Your task to perform on an android device: Open battery settings Image 0: 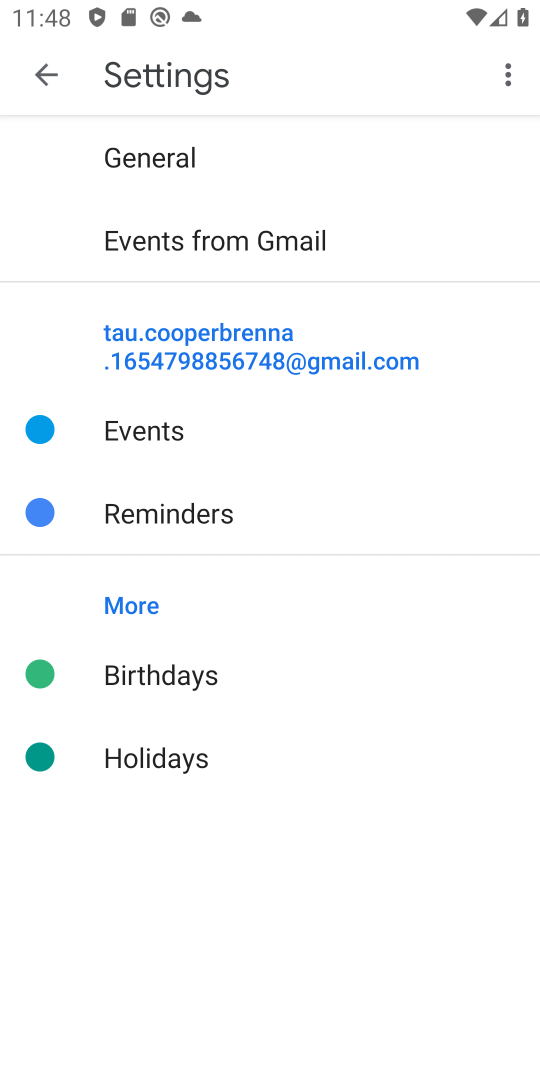
Step 0: press home button
Your task to perform on an android device: Open battery settings Image 1: 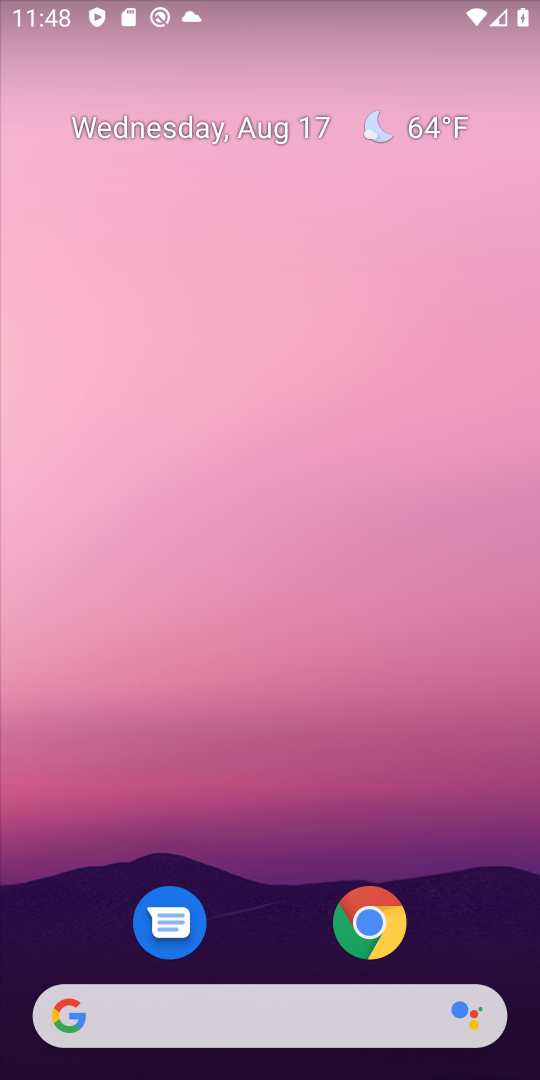
Step 1: drag from (267, 895) to (268, 412)
Your task to perform on an android device: Open battery settings Image 2: 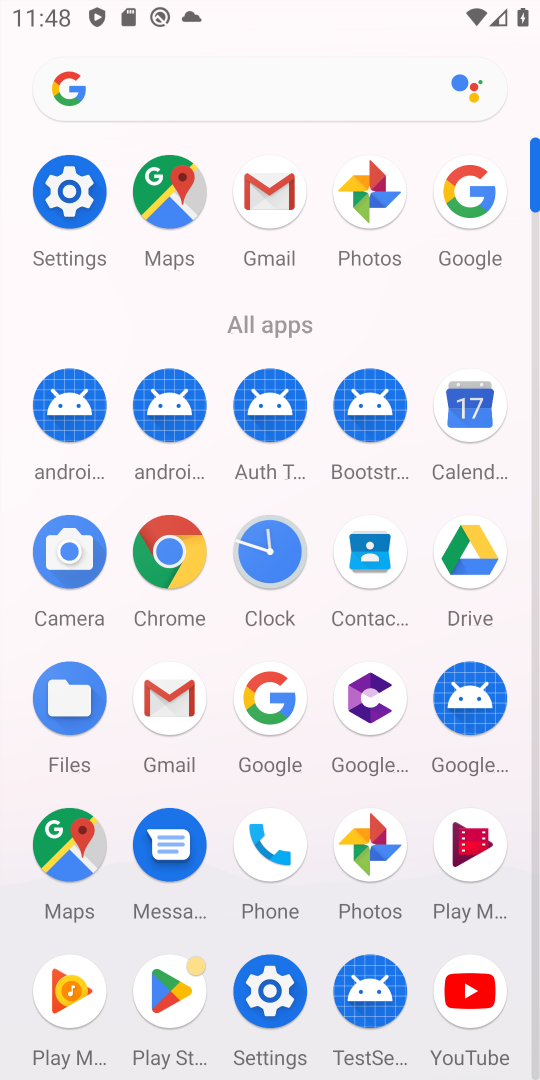
Step 2: click (71, 196)
Your task to perform on an android device: Open battery settings Image 3: 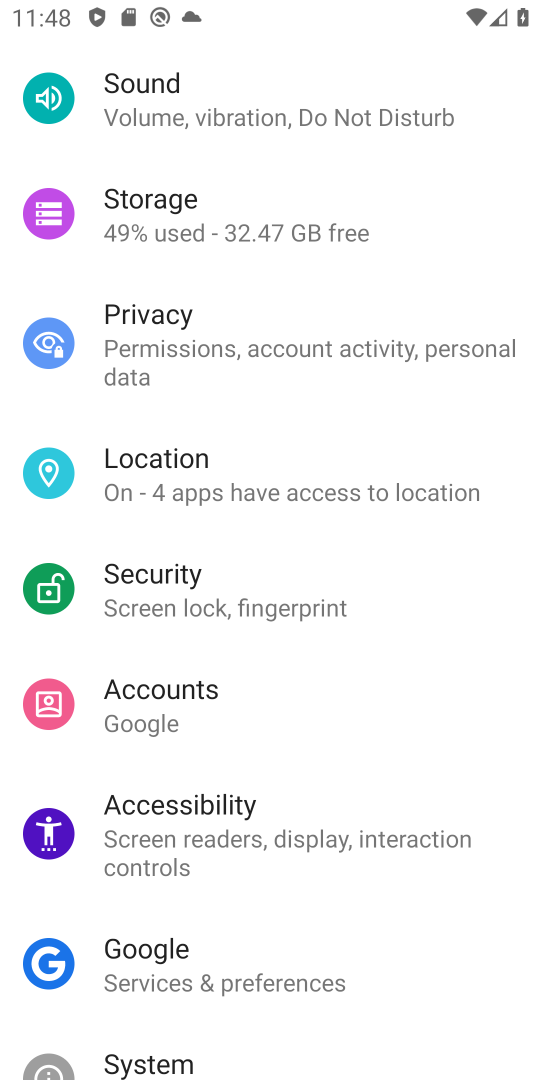
Step 3: drag from (249, 179) to (81, 772)
Your task to perform on an android device: Open battery settings Image 4: 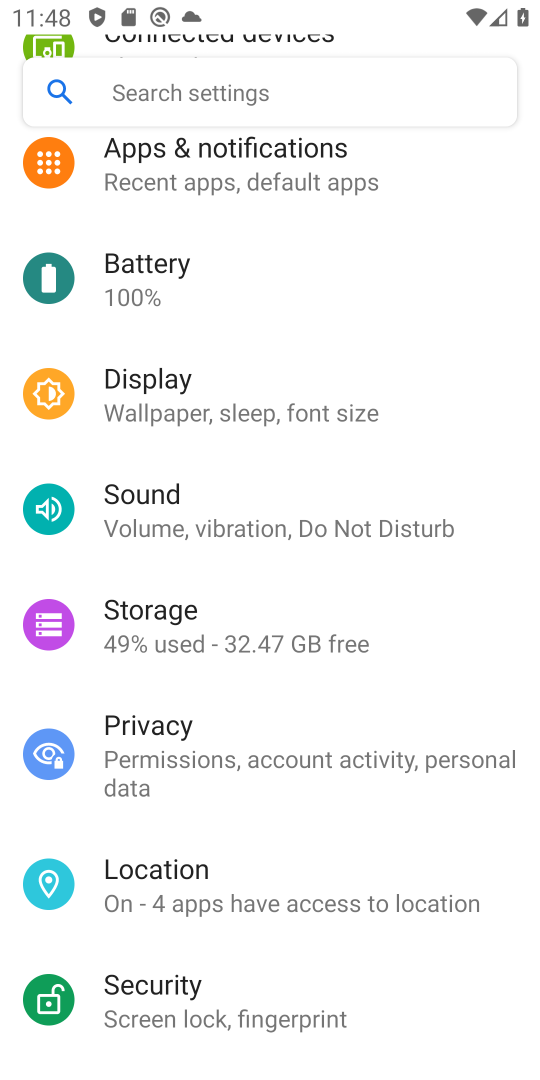
Step 4: click (120, 255)
Your task to perform on an android device: Open battery settings Image 5: 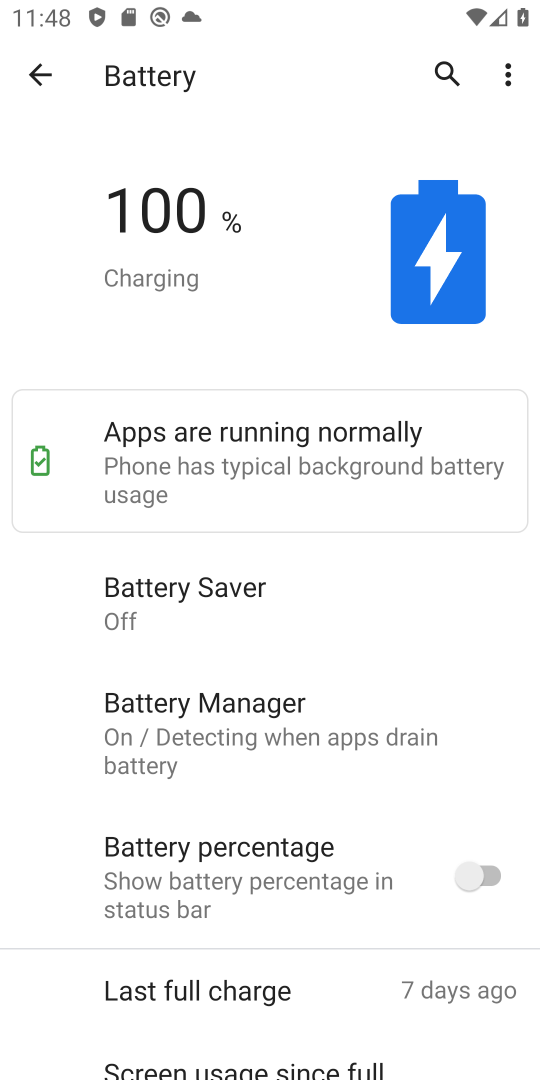
Step 5: task complete